Your task to perform on an android device: Turn off the flashlight Image 0: 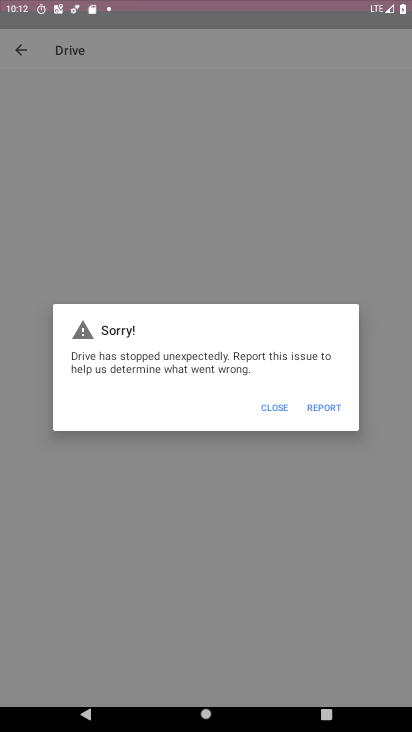
Step 0: drag from (200, 600) to (271, 186)
Your task to perform on an android device: Turn off the flashlight Image 1: 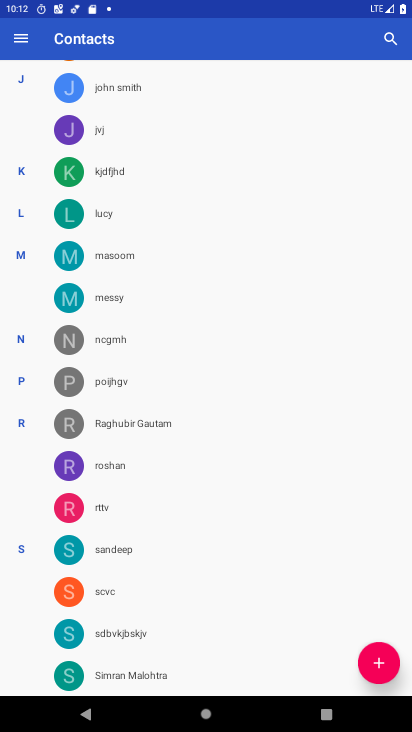
Step 1: click (20, 38)
Your task to perform on an android device: Turn off the flashlight Image 2: 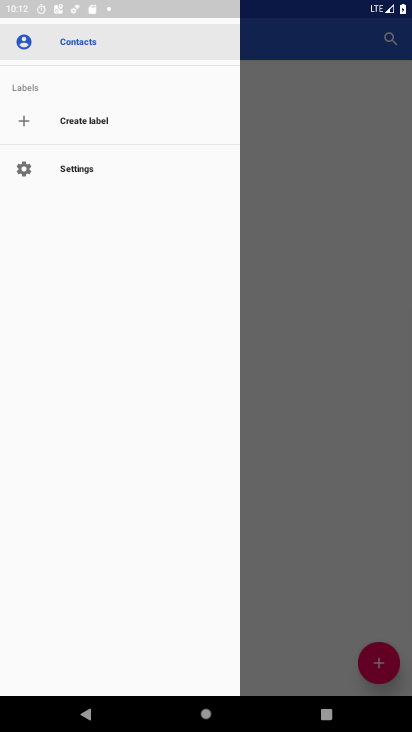
Step 2: task complete